Your task to perform on an android device: toggle notification dots Image 0: 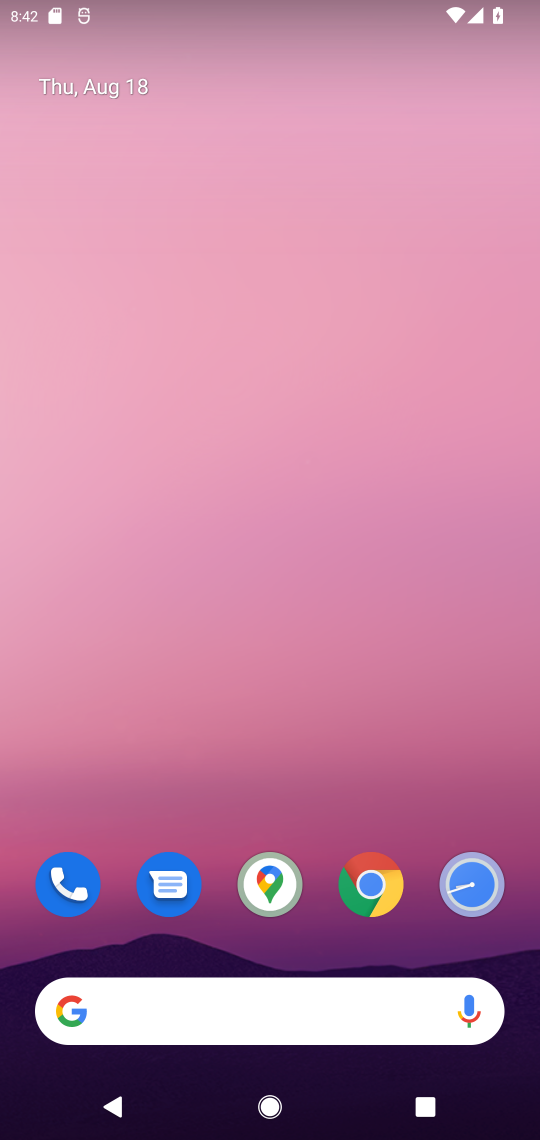
Step 0: drag from (223, 947) to (210, 106)
Your task to perform on an android device: toggle notification dots Image 1: 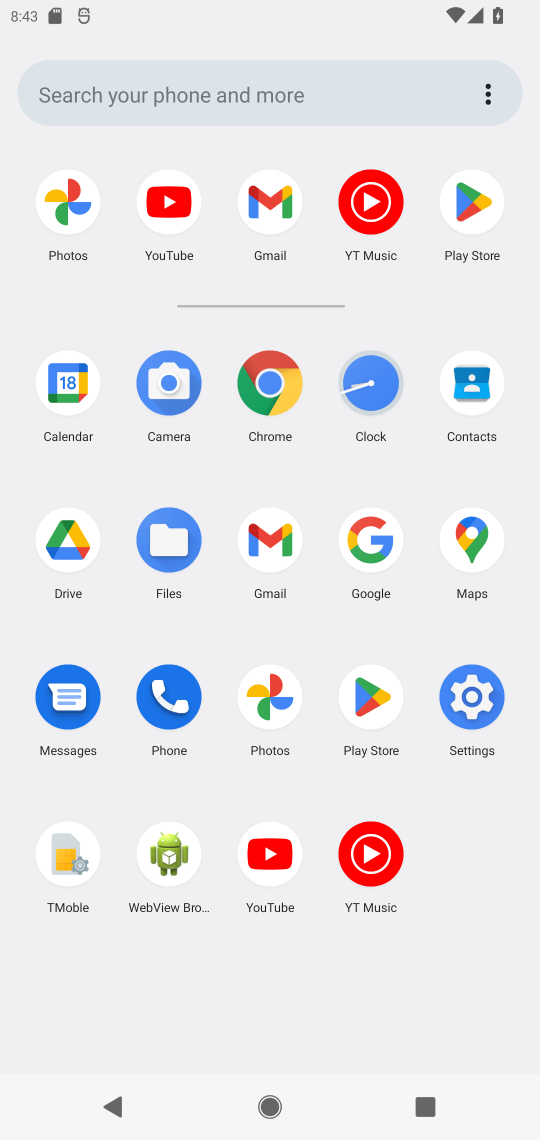
Step 1: click (479, 715)
Your task to perform on an android device: toggle notification dots Image 2: 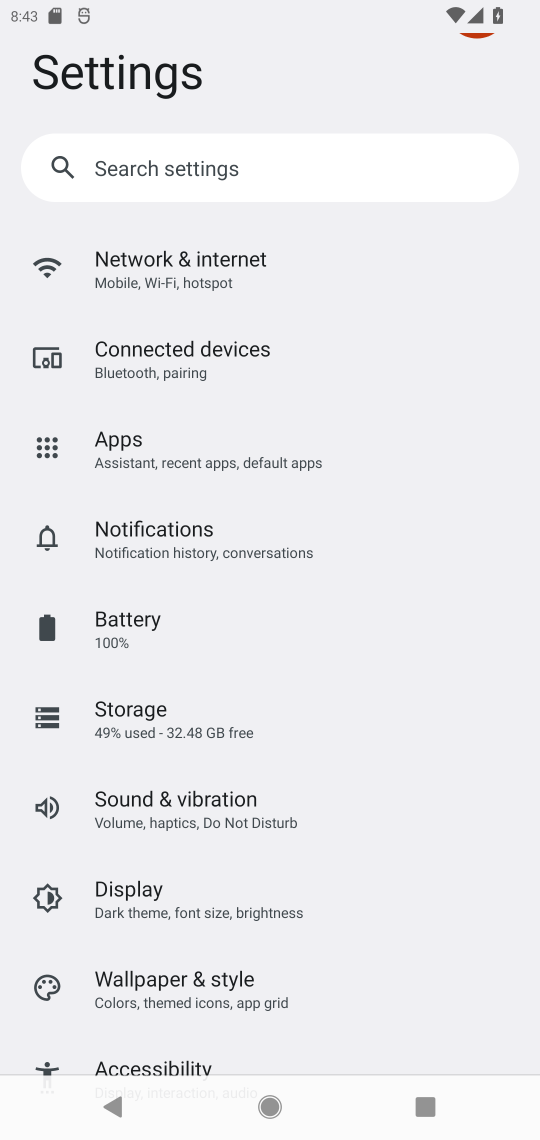
Step 2: click (255, 544)
Your task to perform on an android device: toggle notification dots Image 3: 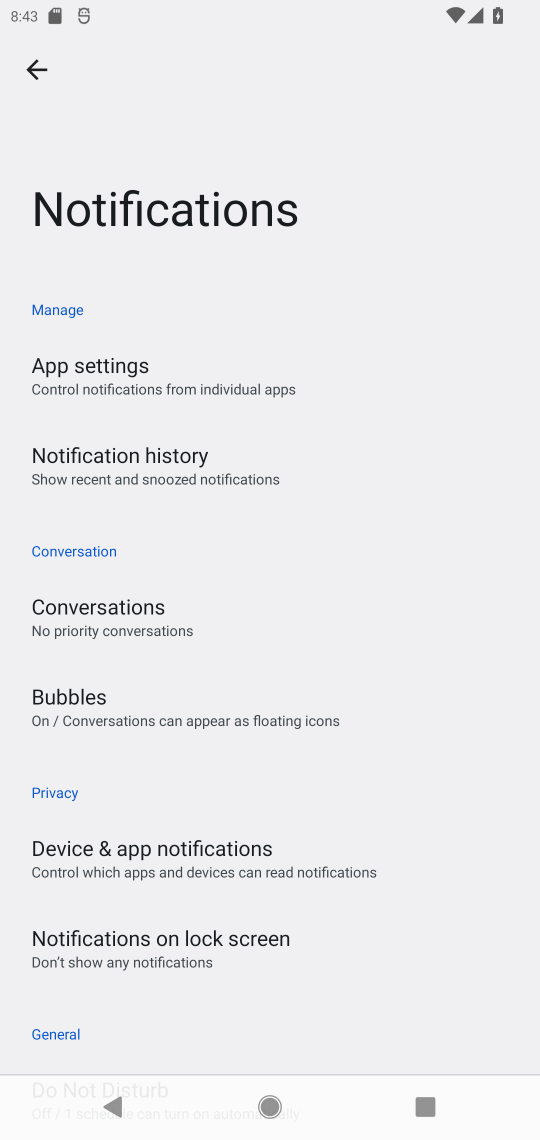
Step 3: drag from (267, 1033) to (338, 248)
Your task to perform on an android device: toggle notification dots Image 4: 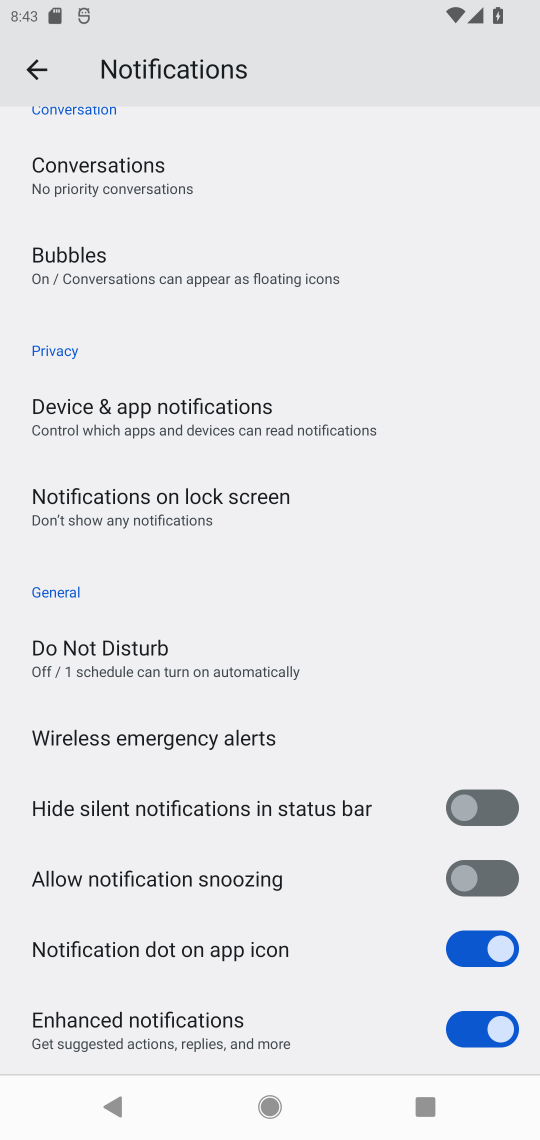
Step 4: drag from (252, 985) to (364, 390)
Your task to perform on an android device: toggle notification dots Image 5: 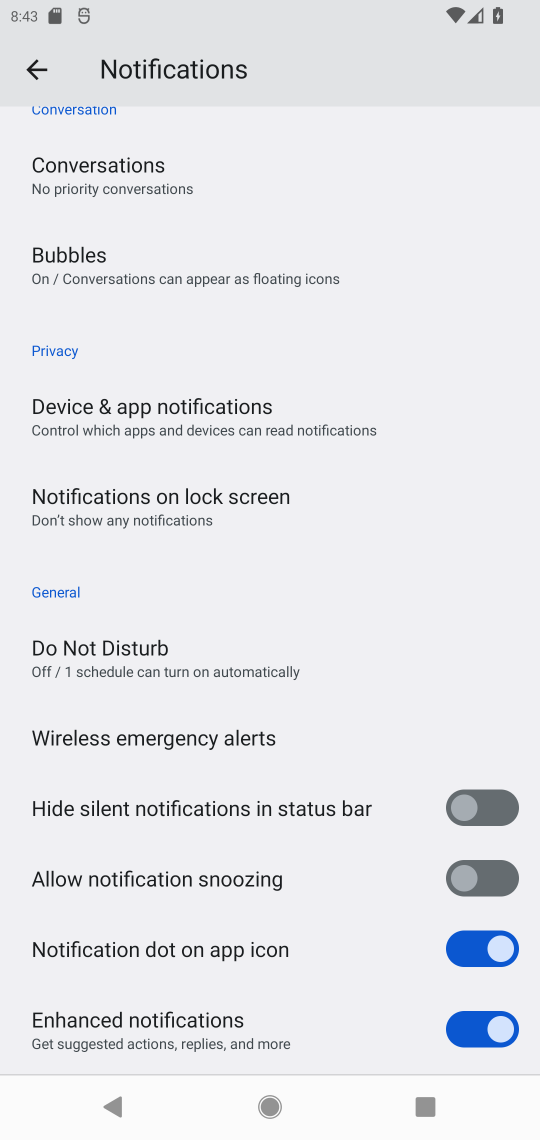
Step 5: drag from (225, 1002) to (228, 441)
Your task to perform on an android device: toggle notification dots Image 6: 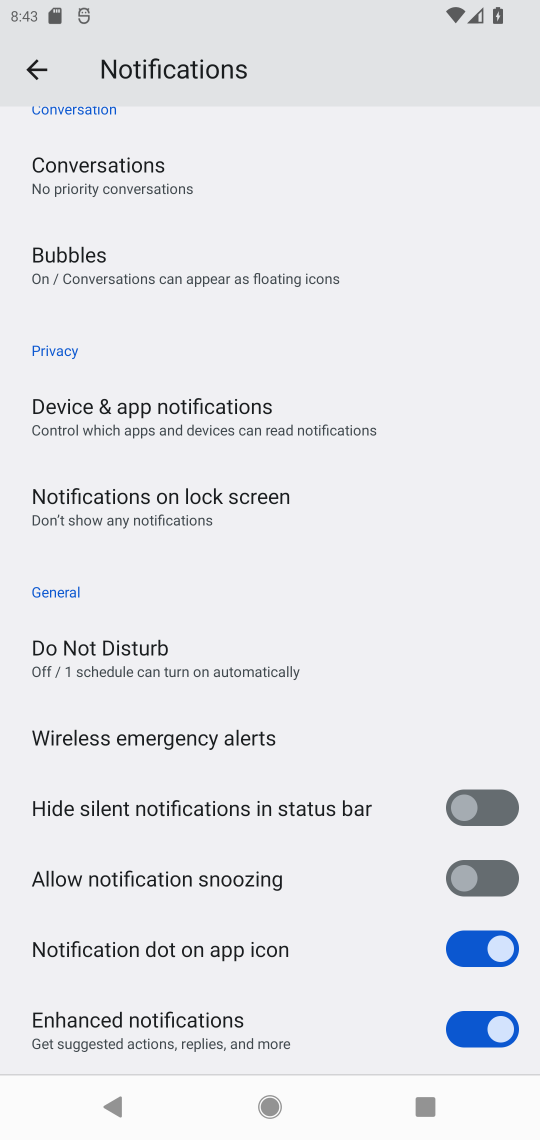
Step 6: click (232, 1008)
Your task to perform on an android device: toggle notification dots Image 7: 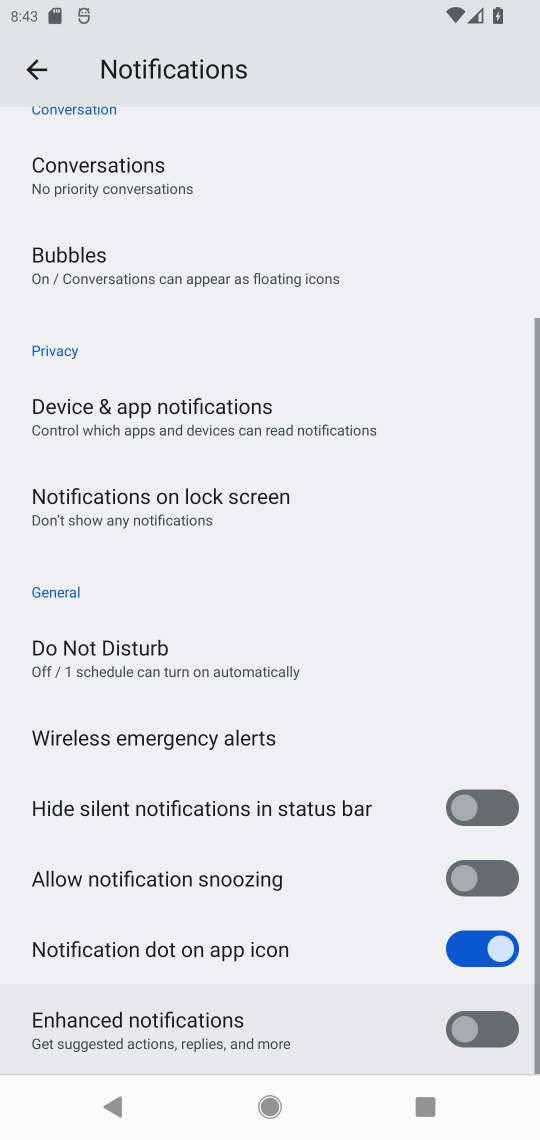
Step 7: task complete